Your task to perform on an android device: Open Amazon Image 0: 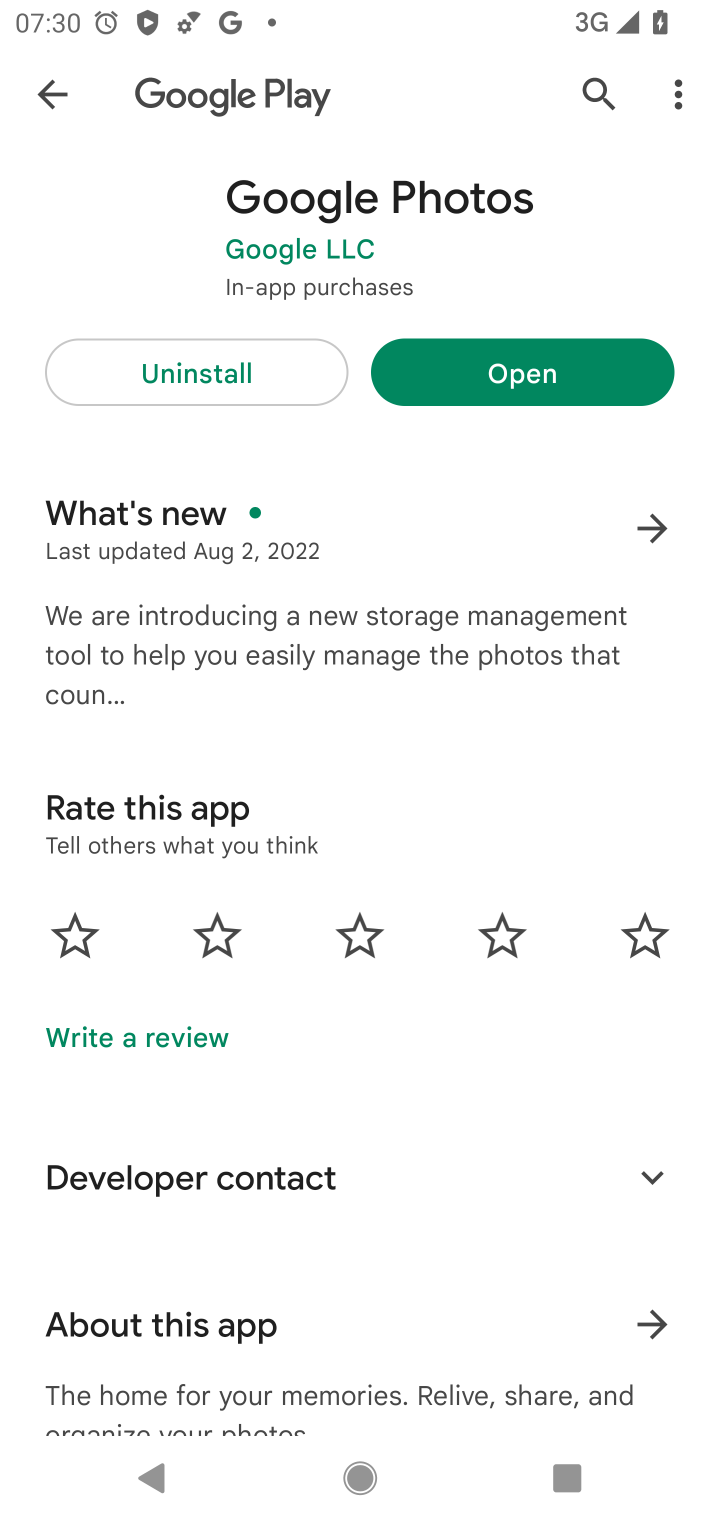
Step 0: press home button
Your task to perform on an android device: Open Amazon Image 1: 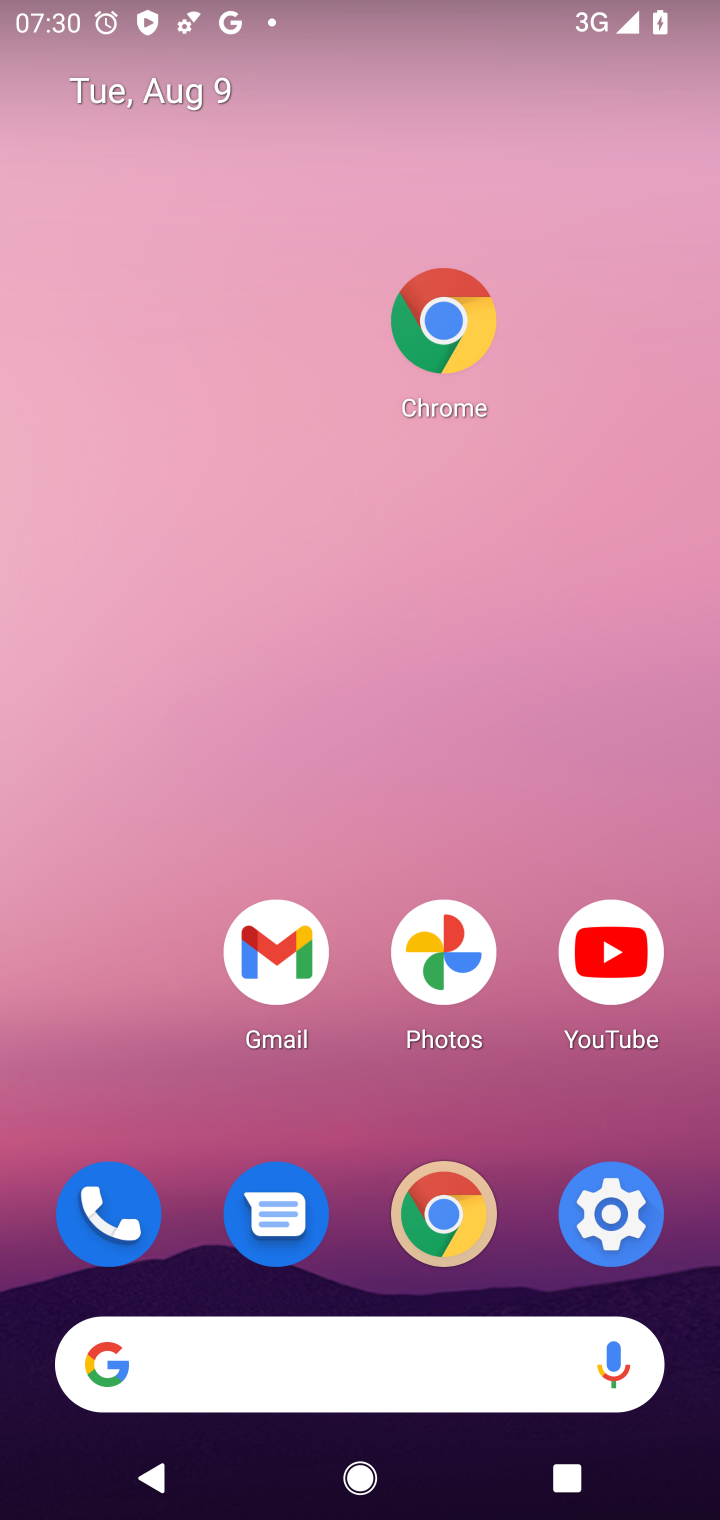
Step 1: click (431, 1240)
Your task to perform on an android device: Open Amazon Image 2: 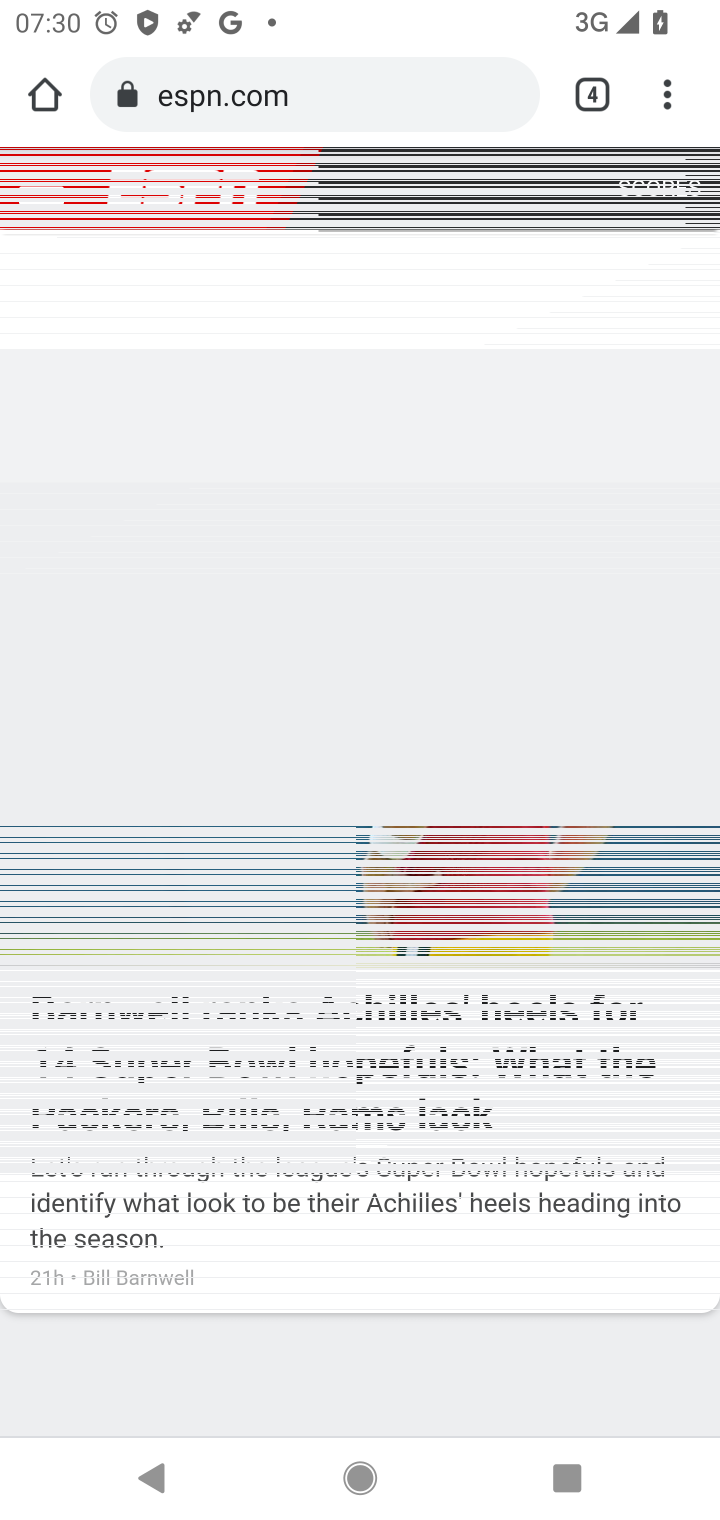
Step 2: click (585, 108)
Your task to perform on an android device: Open Amazon Image 3: 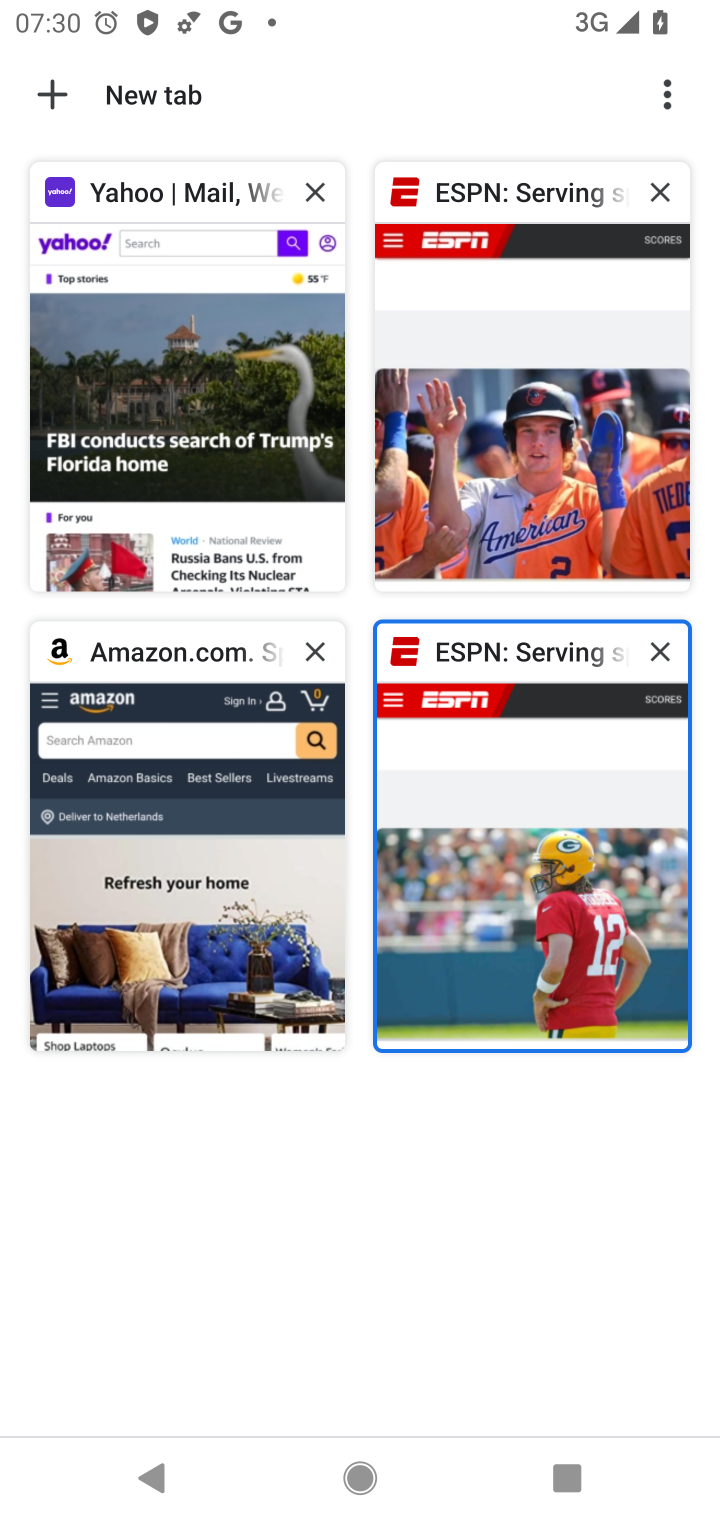
Step 3: click (63, 101)
Your task to perform on an android device: Open Amazon Image 4: 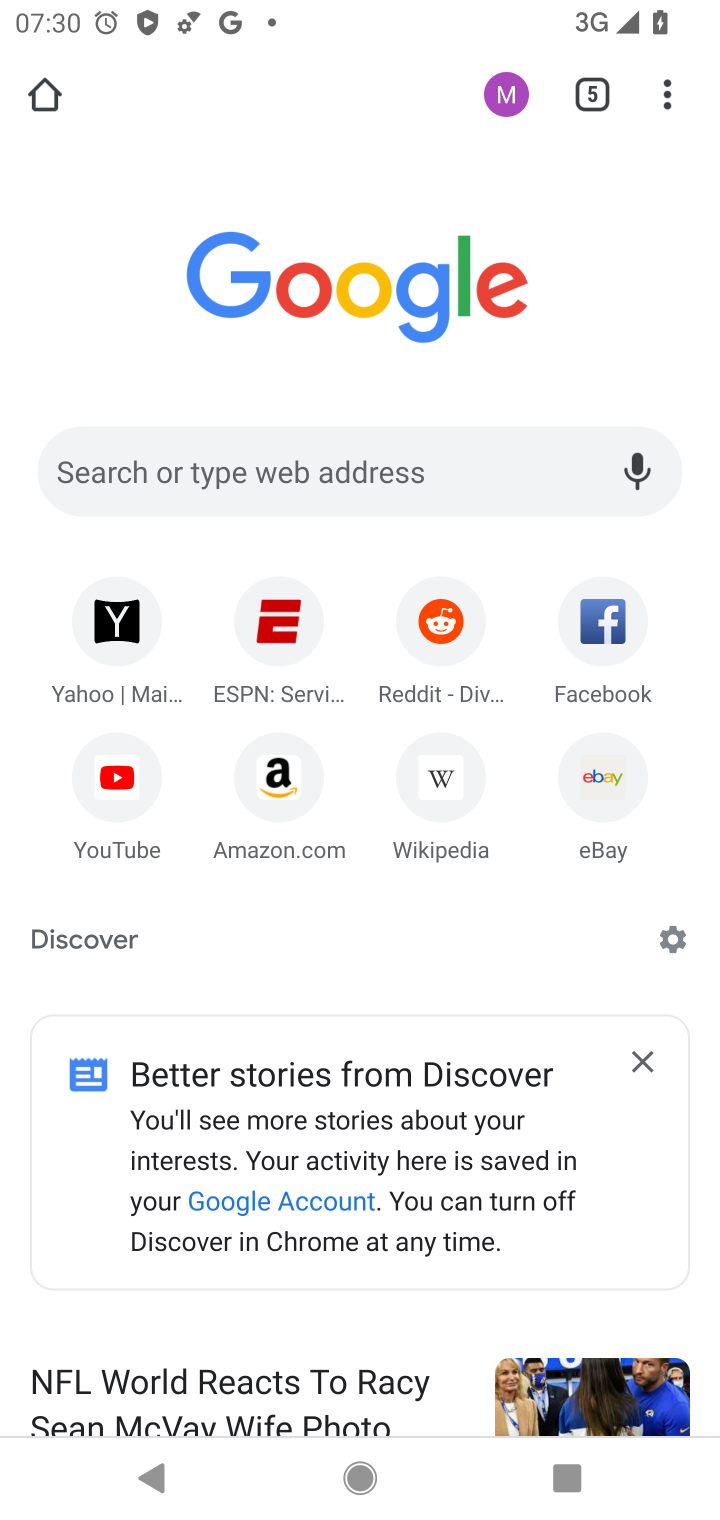
Step 4: click (279, 771)
Your task to perform on an android device: Open Amazon Image 5: 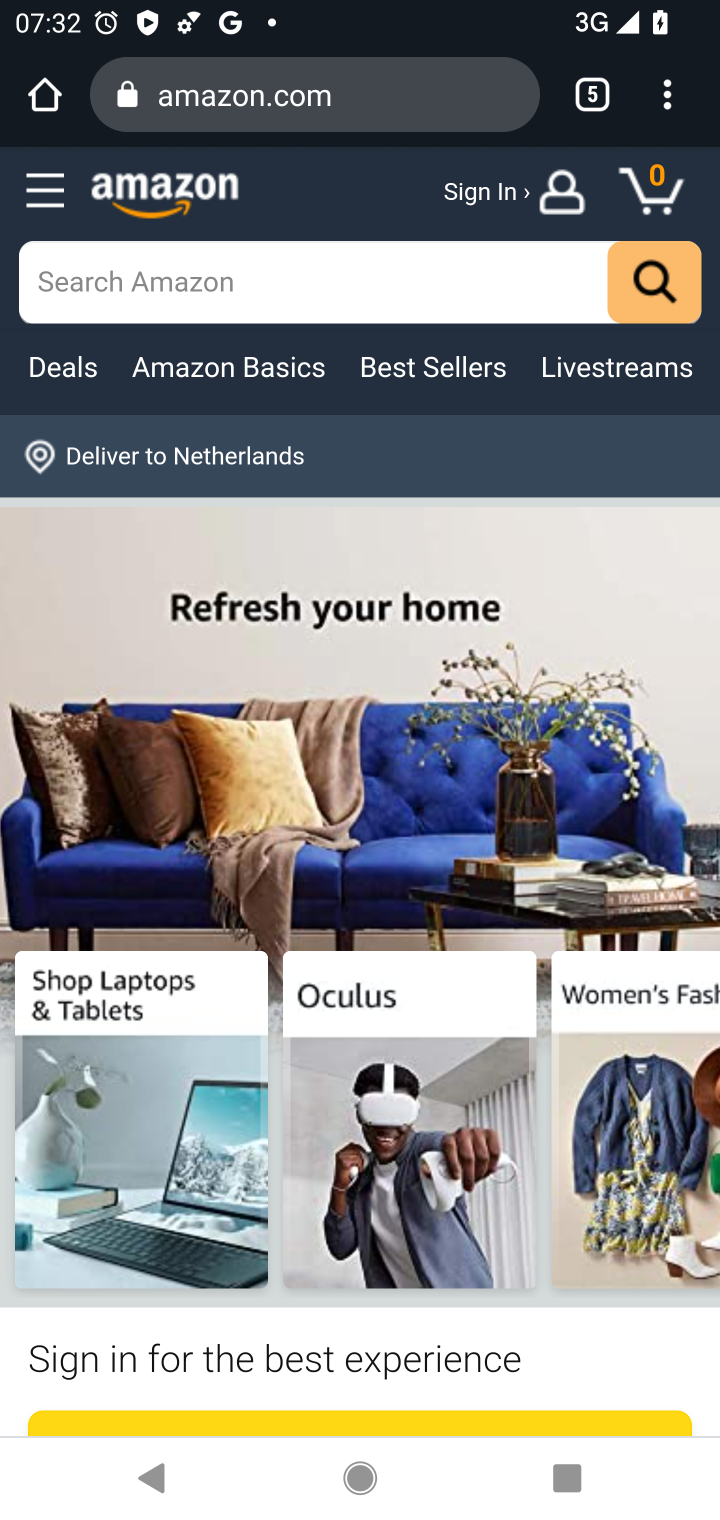
Step 5: task complete